Your task to perform on an android device: Add "razer thresher" to the cart on amazon.com, then select checkout. Image 0: 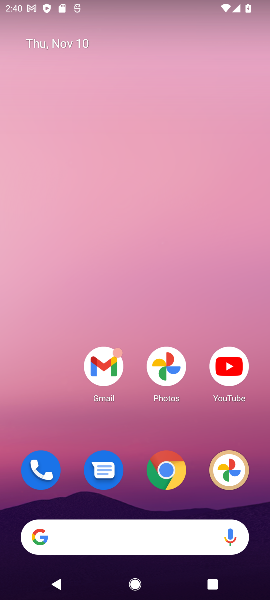
Step 0: click (167, 467)
Your task to perform on an android device: Add "razer thresher" to the cart on amazon.com, then select checkout. Image 1: 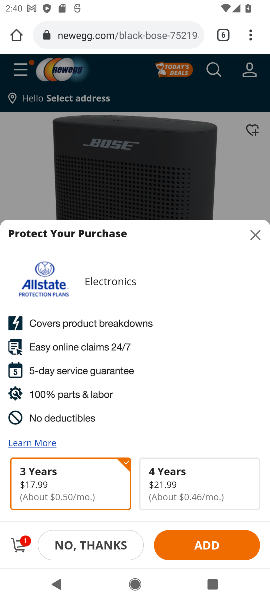
Step 1: click (220, 36)
Your task to perform on an android device: Add "razer thresher" to the cart on amazon.com, then select checkout. Image 2: 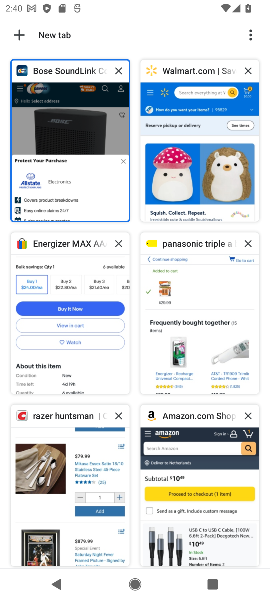
Step 2: click (172, 452)
Your task to perform on an android device: Add "razer thresher" to the cart on amazon.com, then select checkout. Image 3: 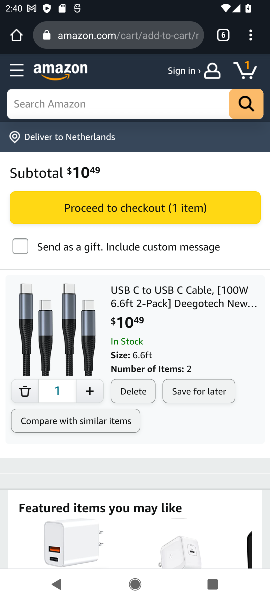
Step 3: click (55, 101)
Your task to perform on an android device: Add "razer thresher" to the cart on amazon.com, then select checkout. Image 4: 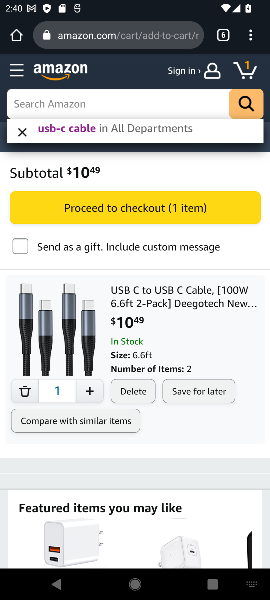
Step 4: type "razer thresher"
Your task to perform on an android device: Add "razer thresher" to the cart on amazon.com, then select checkout. Image 5: 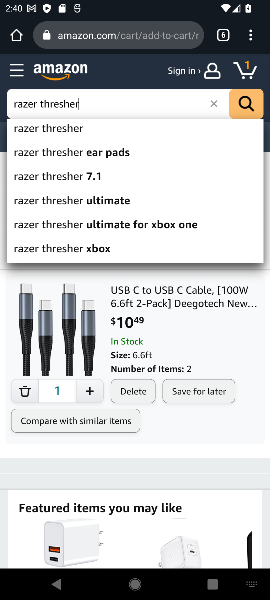
Step 5: click (55, 129)
Your task to perform on an android device: Add "razer thresher" to the cart on amazon.com, then select checkout. Image 6: 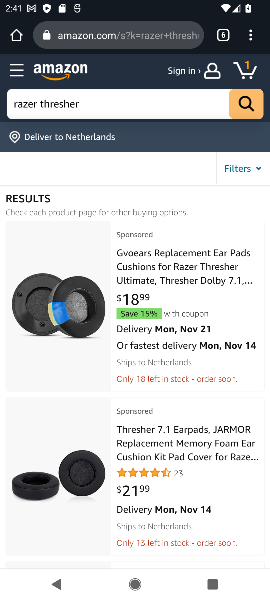
Step 6: drag from (184, 476) to (198, 162)
Your task to perform on an android device: Add "razer thresher" to the cart on amazon.com, then select checkout. Image 7: 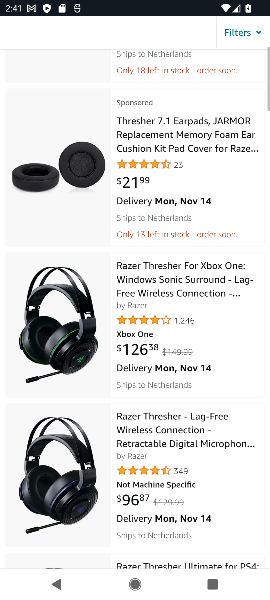
Step 7: click (198, 162)
Your task to perform on an android device: Add "razer thresher" to the cart on amazon.com, then select checkout. Image 8: 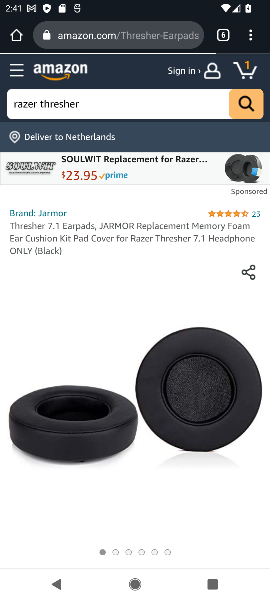
Step 8: press back button
Your task to perform on an android device: Add "razer thresher" to the cart on amazon.com, then select checkout. Image 9: 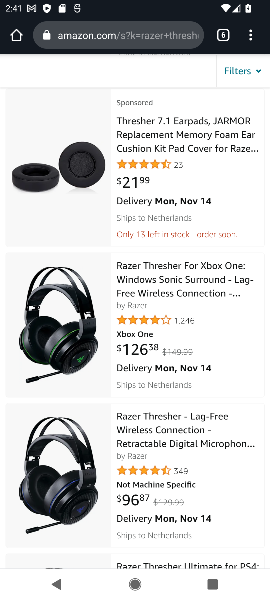
Step 9: click (180, 428)
Your task to perform on an android device: Add "razer thresher" to the cart on amazon.com, then select checkout. Image 10: 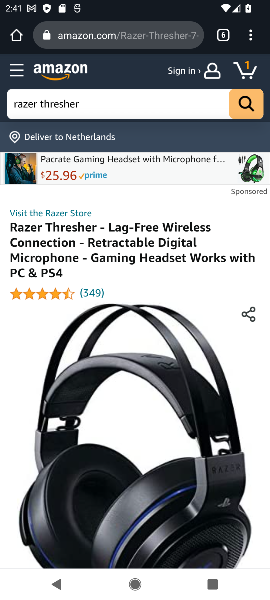
Step 10: drag from (60, 514) to (99, 299)
Your task to perform on an android device: Add "razer thresher" to the cart on amazon.com, then select checkout. Image 11: 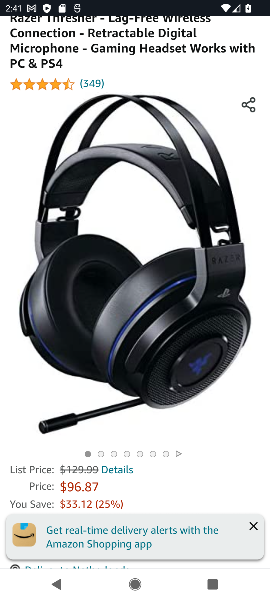
Step 11: drag from (176, 488) to (211, 223)
Your task to perform on an android device: Add "razer thresher" to the cart on amazon.com, then select checkout. Image 12: 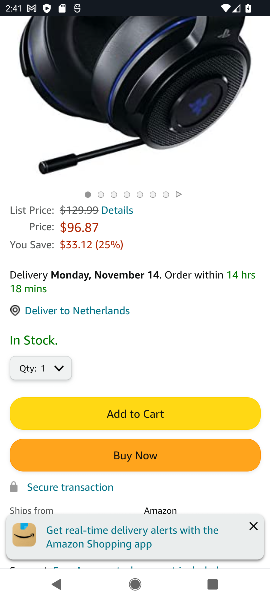
Step 12: click (150, 416)
Your task to perform on an android device: Add "razer thresher" to the cart on amazon.com, then select checkout. Image 13: 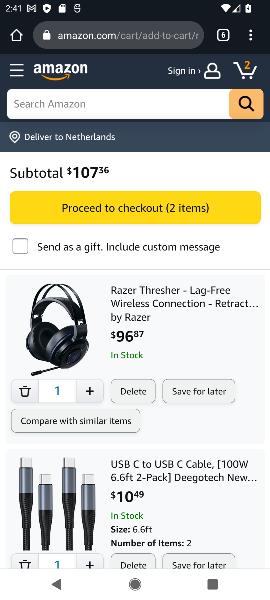
Step 13: click (179, 205)
Your task to perform on an android device: Add "razer thresher" to the cart on amazon.com, then select checkout. Image 14: 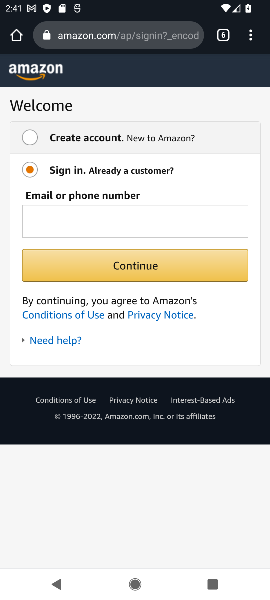
Step 14: task complete